Your task to perform on an android device: Add asus rog to the cart on walmart.com, then select checkout. Image 0: 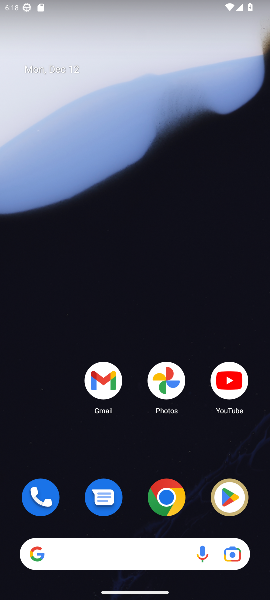
Step 0: drag from (57, 437) to (63, 62)
Your task to perform on an android device: Add asus rog to the cart on walmart.com, then select checkout. Image 1: 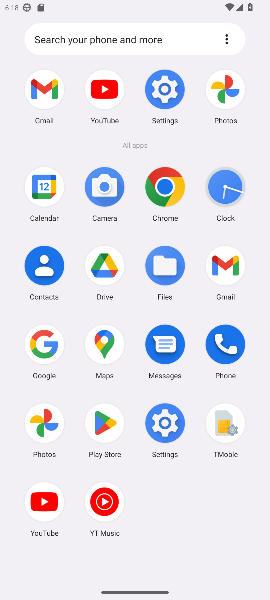
Step 1: click (38, 336)
Your task to perform on an android device: Add asus rog to the cart on walmart.com, then select checkout. Image 2: 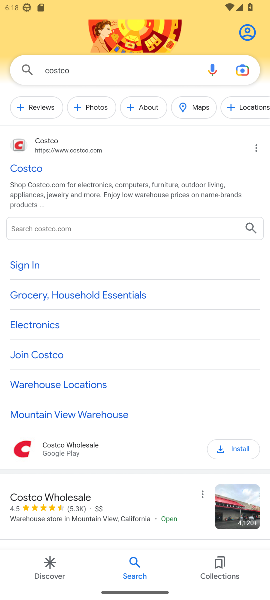
Step 2: press back button
Your task to perform on an android device: Add asus rog to the cart on walmart.com, then select checkout. Image 3: 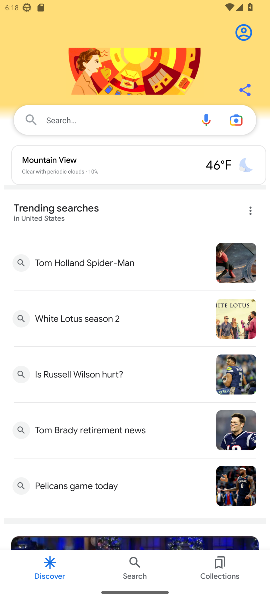
Step 3: click (91, 123)
Your task to perform on an android device: Add asus rog to the cart on walmart.com, then select checkout. Image 4: 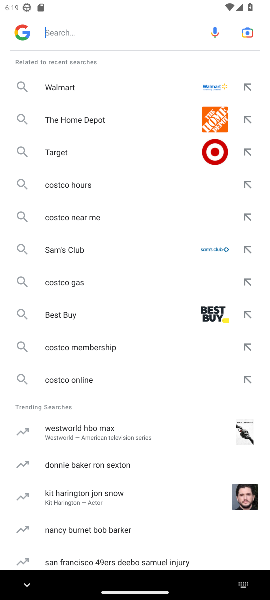
Step 4: type "walmart.com"
Your task to perform on an android device: Add asus rog to the cart on walmart.com, then select checkout. Image 5: 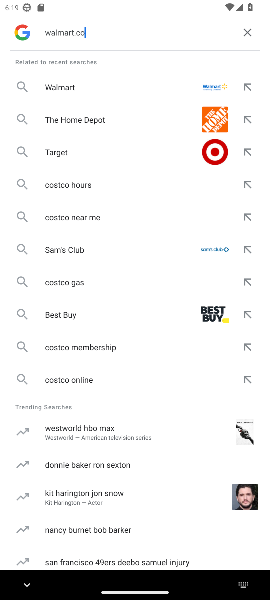
Step 5: press enter
Your task to perform on an android device: Add asus rog to the cart on walmart.com, then select checkout. Image 6: 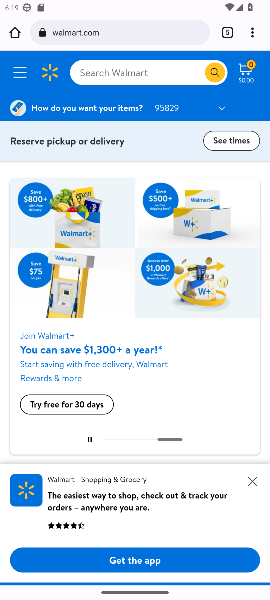
Step 6: click (101, 66)
Your task to perform on an android device: Add asus rog to the cart on walmart.com, then select checkout. Image 7: 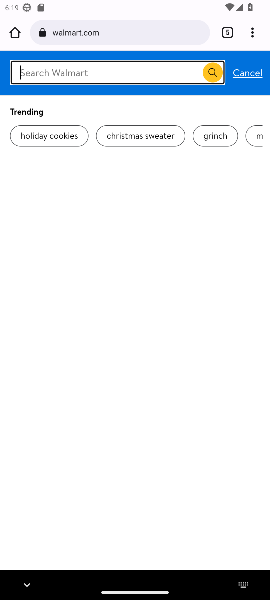
Step 7: press enter
Your task to perform on an android device: Add asus rog to the cart on walmart.com, then select checkout. Image 8: 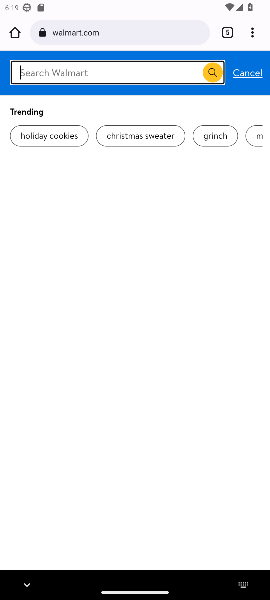
Step 8: type "asus rog"
Your task to perform on an android device: Add asus rog to the cart on walmart.com, then select checkout. Image 9: 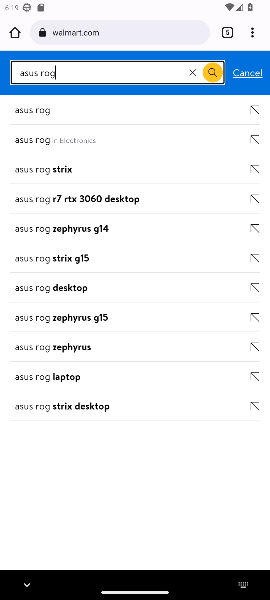
Step 9: press enter
Your task to perform on an android device: Add asus rog to the cart on walmart.com, then select checkout. Image 10: 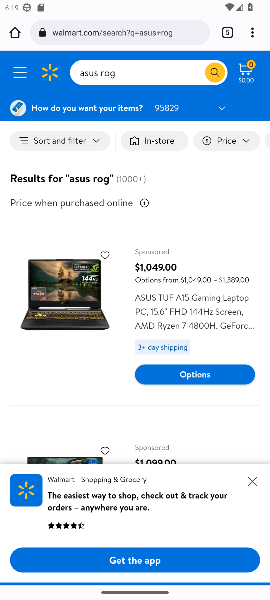
Step 10: click (159, 288)
Your task to perform on an android device: Add asus rog to the cart on walmart.com, then select checkout. Image 11: 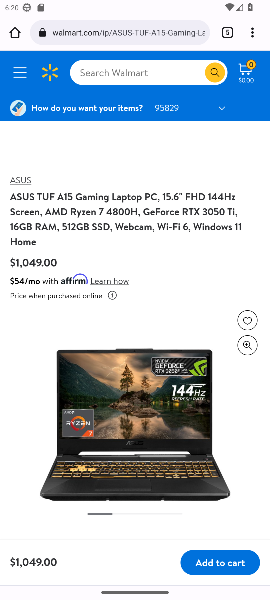
Step 11: click (209, 557)
Your task to perform on an android device: Add asus rog to the cart on walmart.com, then select checkout. Image 12: 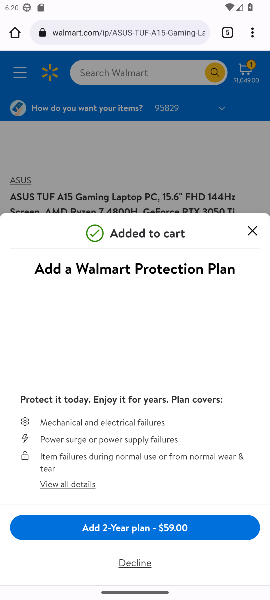
Step 12: task complete